Your task to perform on an android device: open app "Duolingo: language lessons" Image 0: 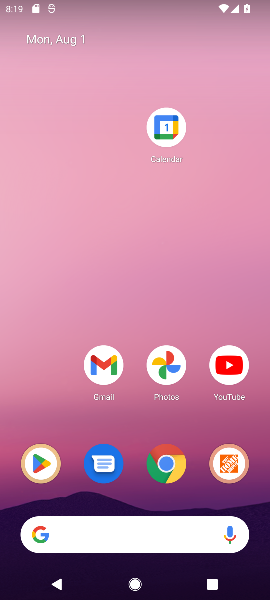
Step 0: drag from (70, 498) to (73, 45)
Your task to perform on an android device: open app "Duolingo: language lessons" Image 1: 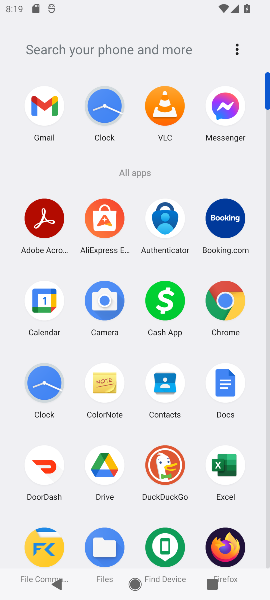
Step 1: press home button
Your task to perform on an android device: open app "Duolingo: language lessons" Image 2: 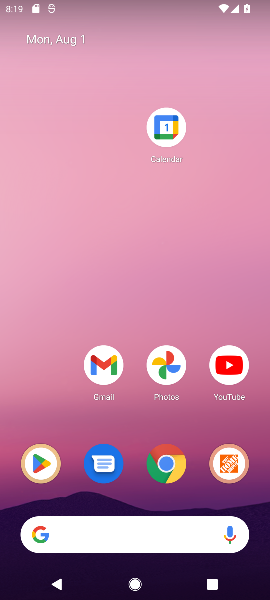
Step 2: click (47, 468)
Your task to perform on an android device: open app "Duolingo: language lessons" Image 3: 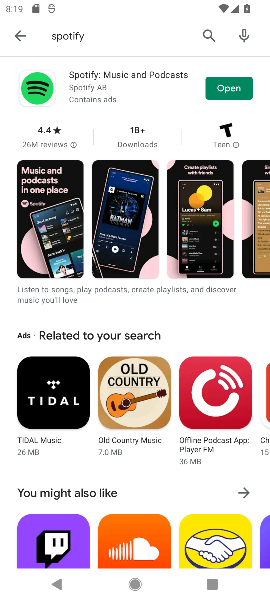
Step 3: click (215, 36)
Your task to perform on an android device: open app "Duolingo: language lessons" Image 4: 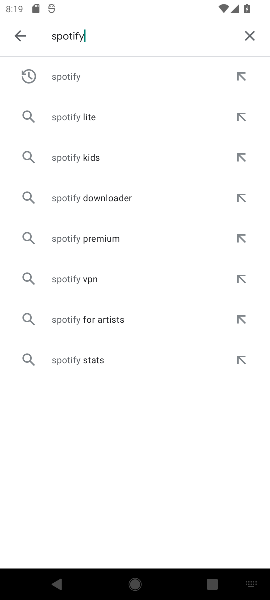
Step 4: click (245, 41)
Your task to perform on an android device: open app "Duolingo: language lessons" Image 5: 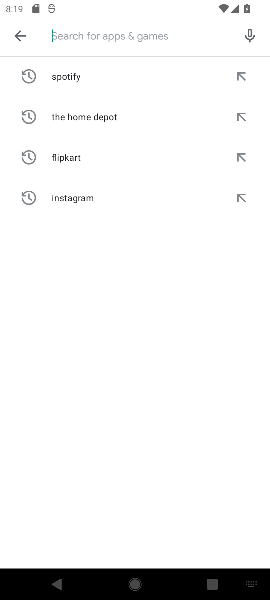
Step 5: type ""
Your task to perform on an android device: open app "Duolingo: language lessons" Image 6: 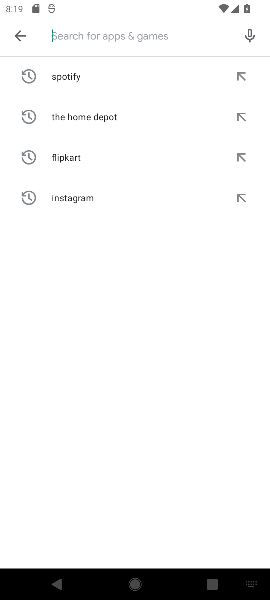
Step 6: type "duolingo"
Your task to perform on an android device: open app "Duolingo: language lessons" Image 7: 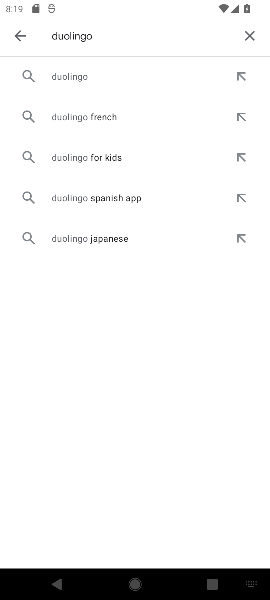
Step 7: click (91, 73)
Your task to perform on an android device: open app "Duolingo: language lessons" Image 8: 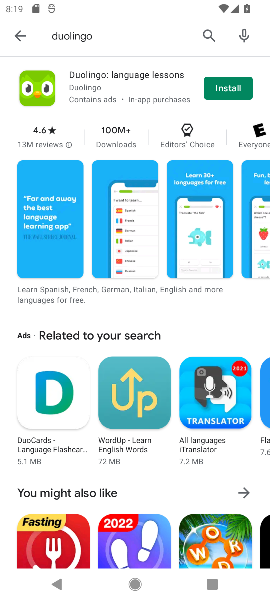
Step 8: click (219, 96)
Your task to perform on an android device: open app "Duolingo: language lessons" Image 9: 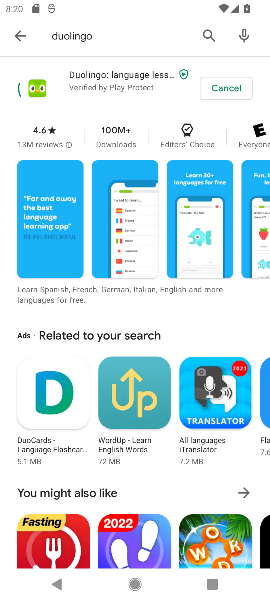
Step 9: task complete